Your task to perform on an android device: open app "Clock" (install if not already installed) Image 0: 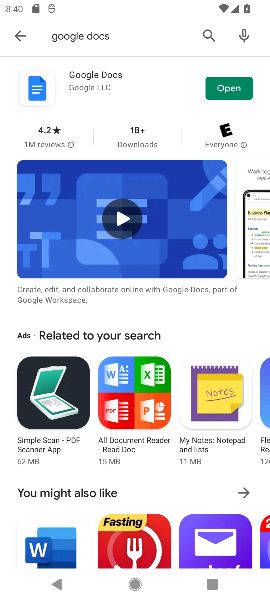
Step 0: press home button
Your task to perform on an android device: open app "Clock" (install if not already installed) Image 1: 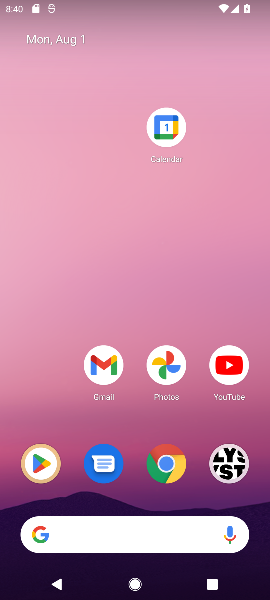
Step 1: drag from (72, 500) to (64, 75)
Your task to perform on an android device: open app "Clock" (install if not already installed) Image 2: 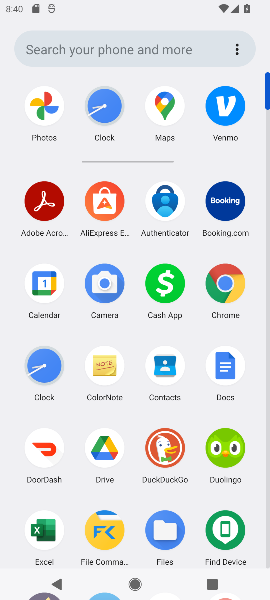
Step 2: click (110, 112)
Your task to perform on an android device: open app "Clock" (install if not already installed) Image 3: 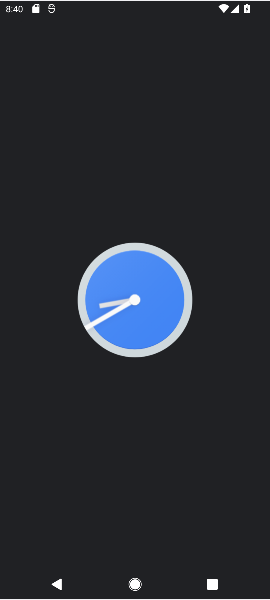
Step 3: task complete